Your task to perform on an android device: Search for sushi restaurants on Maps Image 0: 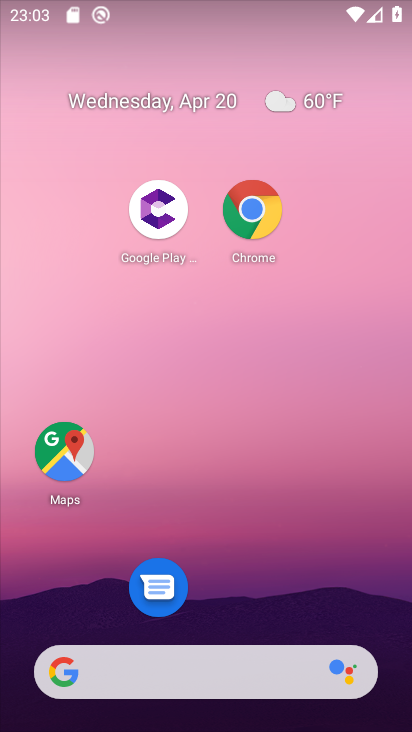
Step 0: click (64, 448)
Your task to perform on an android device: Search for sushi restaurants on Maps Image 1: 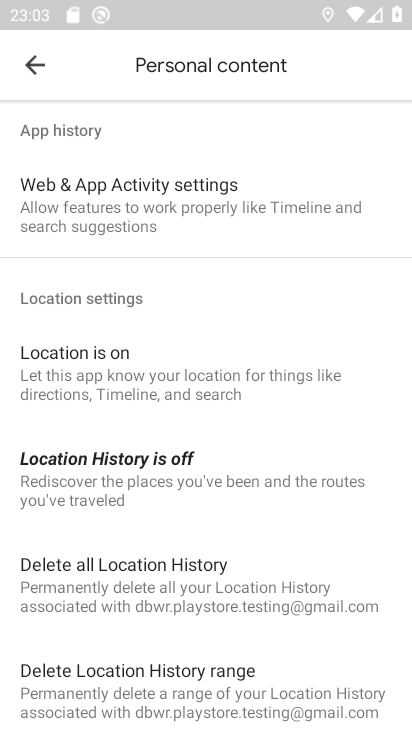
Step 1: click (44, 61)
Your task to perform on an android device: Search for sushi restaurants on Maps Image 2: 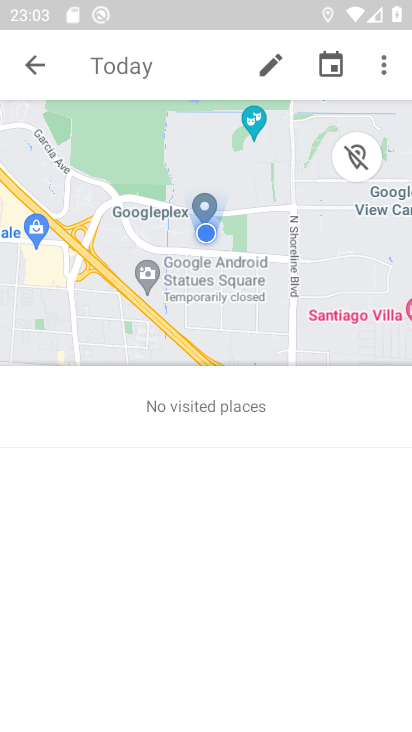
Step 2: click (39, 66)
Your task to perform on an android device: Search for sushi restaurants on Maps Image 3: 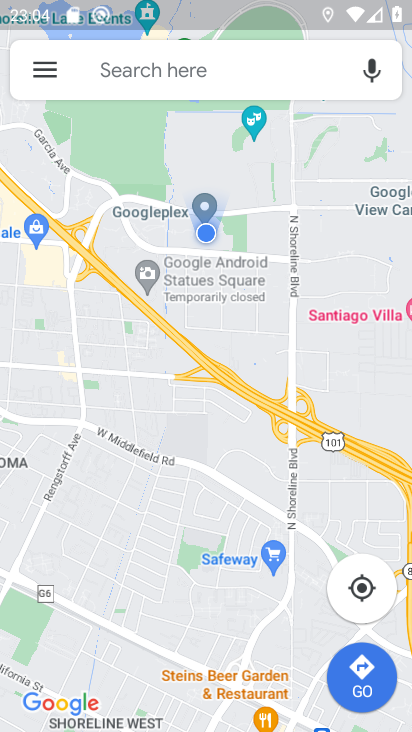
Step 3: click (139, 60)
Your task to perform on an android device: Search for sushi restaurants on Maps Image 4: 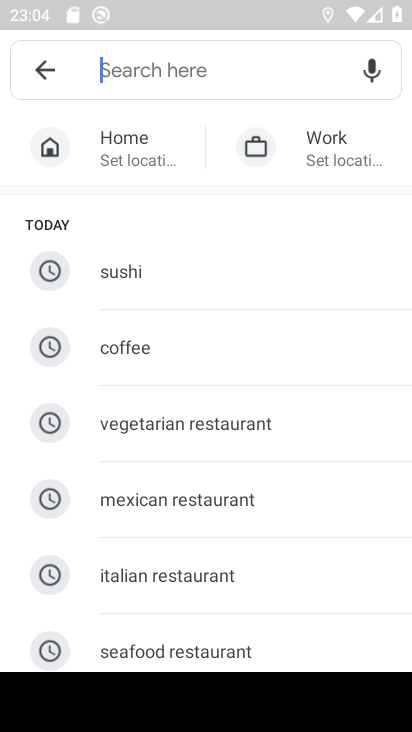
Step 4: click (160, 281)
Your task to perform on an android device: Search for sushi restaurants on Maps Image 5: 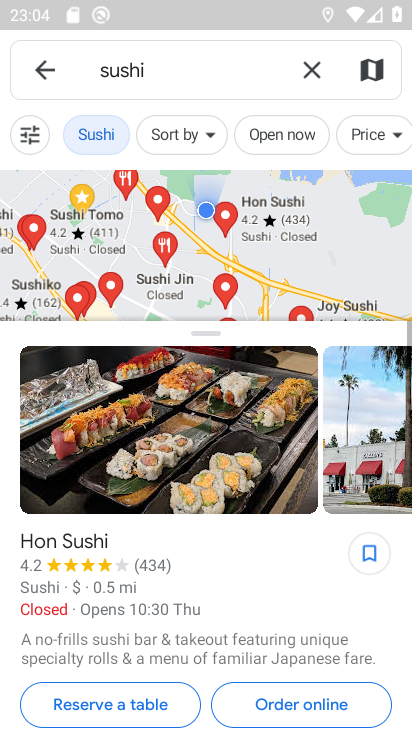
Step 5: task complete